Your task to perform on an android device: turn on showing notifications on the lock screen Image 0: 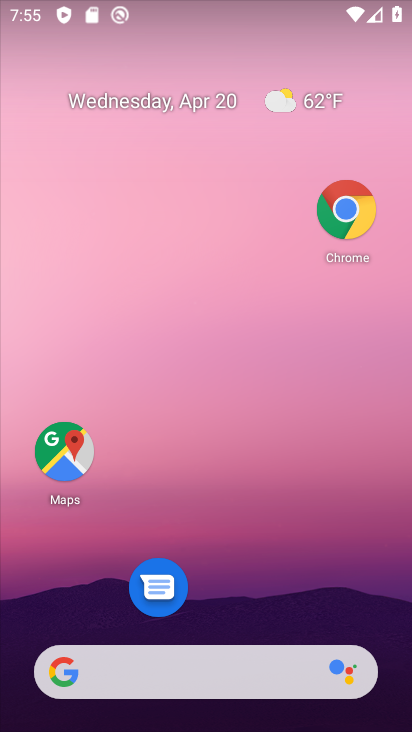
Step 0: drag from (208, 623) to (178, 144)
Your task to perform on an android device: turn on showing notifications on the lock screen Image 1: 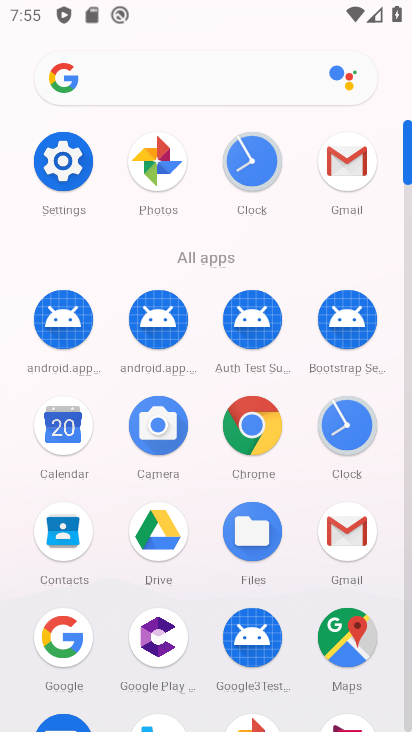
Step 1: click (70, 177)
Your task to perform on an android device: turn on showing notifications on the lock screen Image 2: 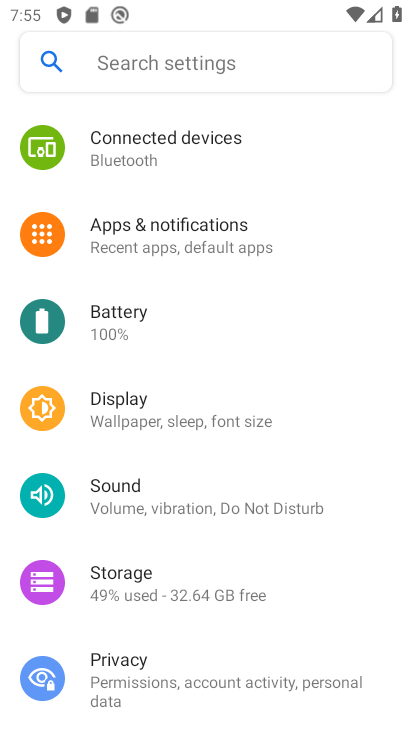
Step 2: click (162, 239)
Your task to perform on an android device: turn on showing notifications on the lock screen Image 3: 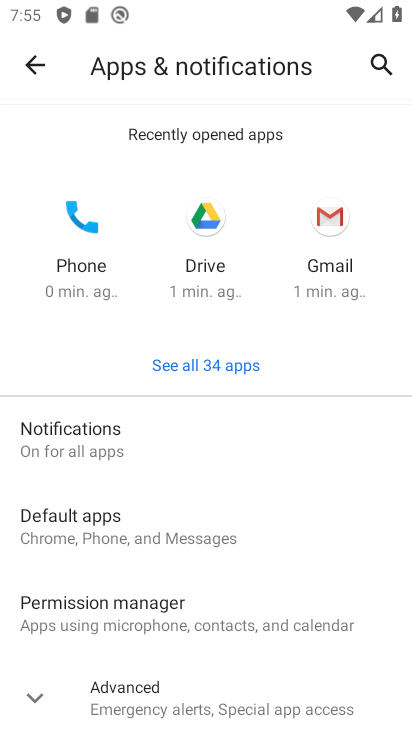
Step 3: click (115, 429)
Your task to perform on an android device: turn on showing notifications on the lock screen Image 4: 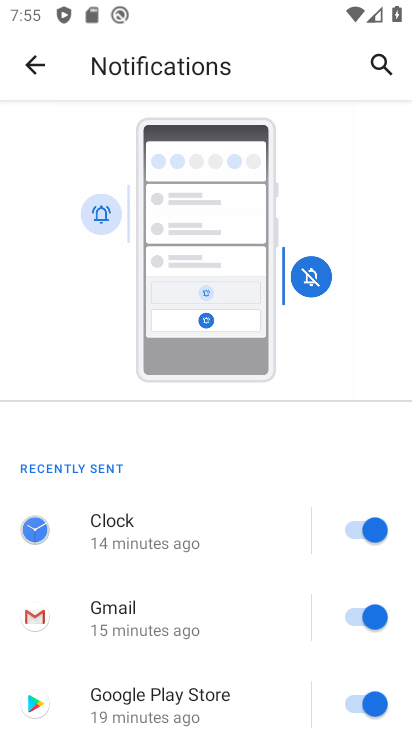
Step 4: drag from (169, 683) to (185, 147)
Your task to perform on an android device: turn on showing notifications on the lock screen Image 5: 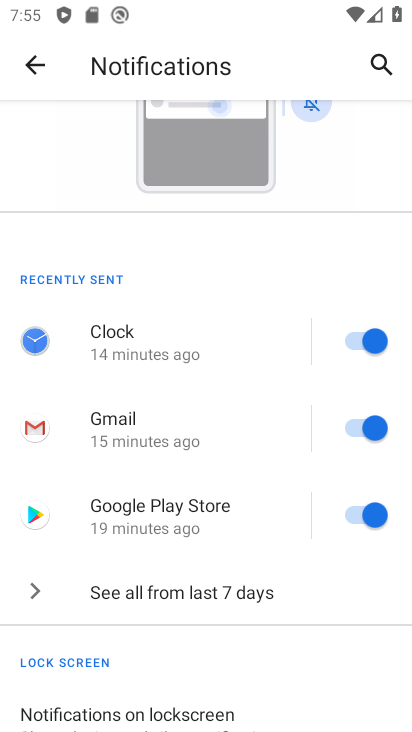
Step 5: drag from (116, 651) to (121, 193)
Your task to perform on an android device: turn on showing notifications on the lock screen Image 6: 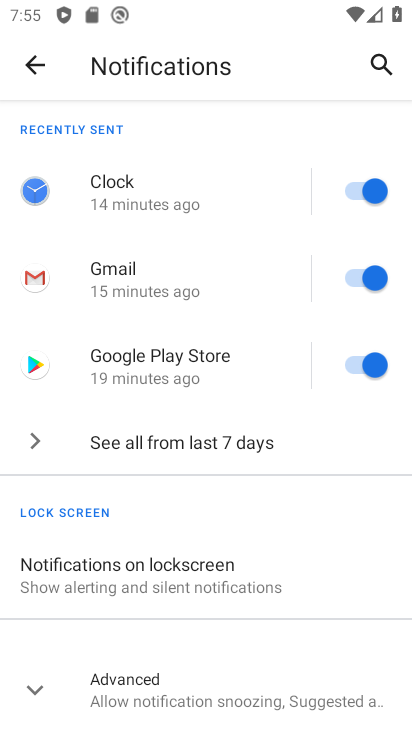
Step 6: click (189, 582)
Your task to perform on an android device: turn on showing notifications on the lock screen Image 7: 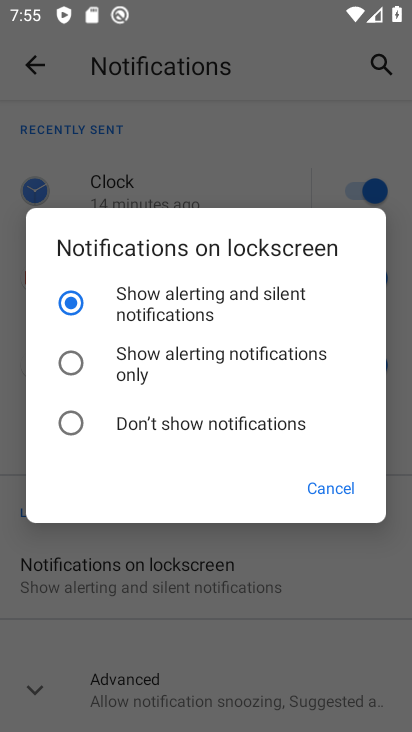
Step 7: task complete